Your task to perform on an android device: Find coffee shops on Maps Image 0: 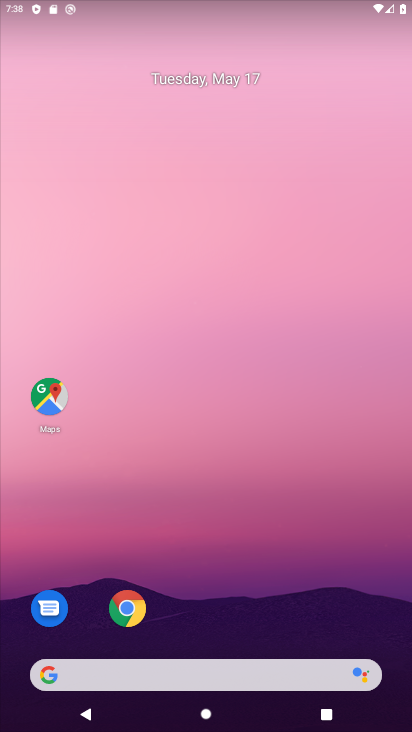
Step 0: click (55, 411)
Your task to perform on an android device: Find coffee shops on Maps Image 1: 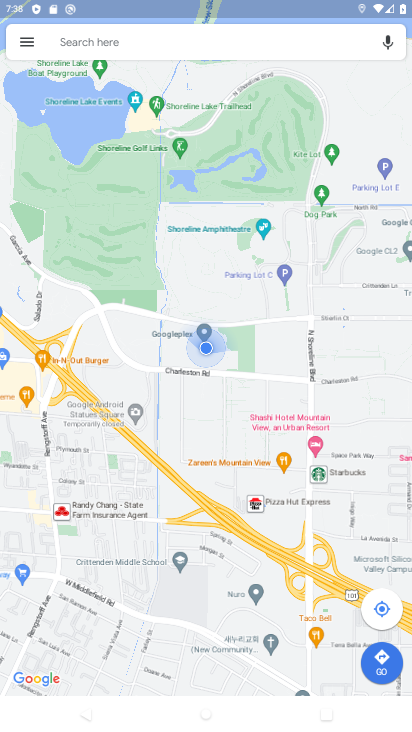
Step 1: click (228, 30)
Your task to perform on an android device: Find coffee shops on Maps Image 2: 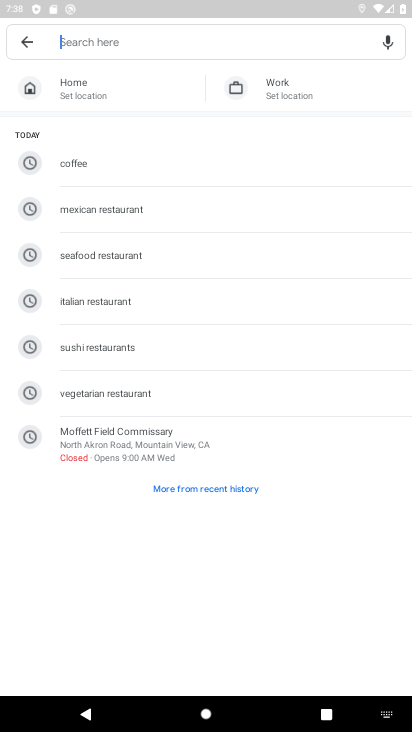
Step 2: click (82, 172)
Your task to perform on an android device: Find coffee shops on Maps Image 3: 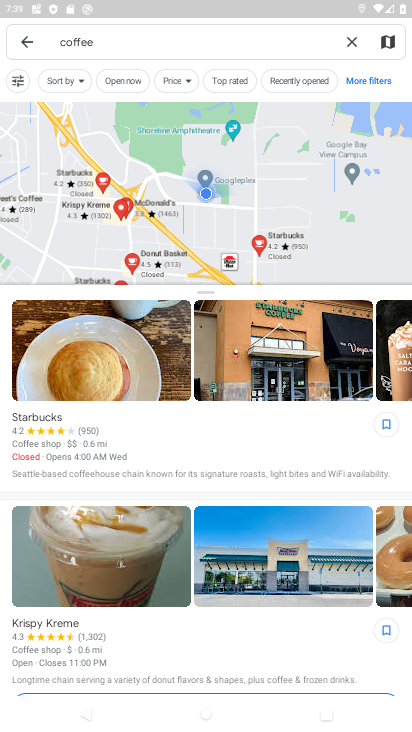
Step 3: task complete